Your task to perform on an android device: Search for pizza restaurants on Maps Image 0: 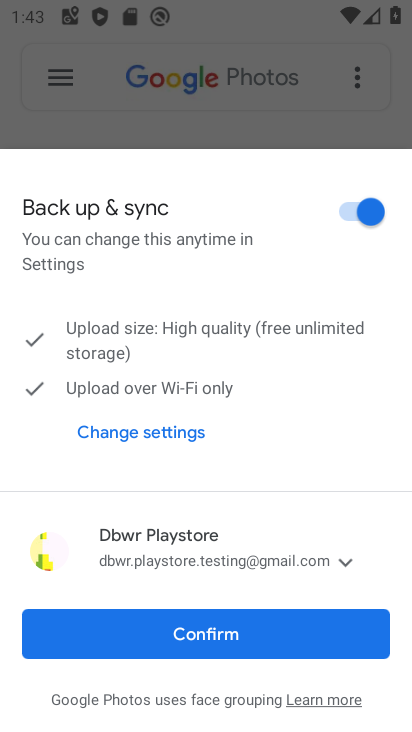
Step 0: press home button
Your task to perform on an android device: Search for pizza restaurants on Maps Image 1: 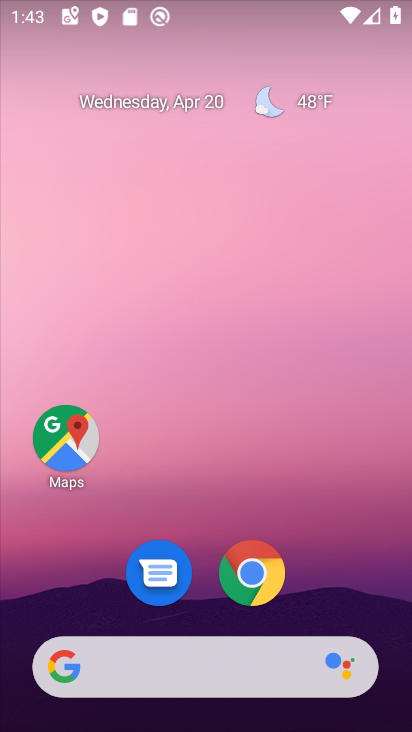
Step 1: drag from (178, 649) to (325, 124)
Your task to perform on an android device: Search for pizza restaurants on Maps Image 2: 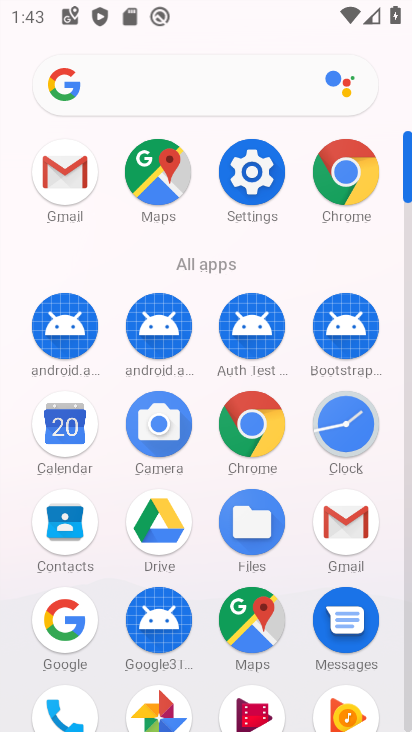
Step 2: click (165, 187)
Your task to perform on an android device: Search for pizza restaurants on Maps Image 3: 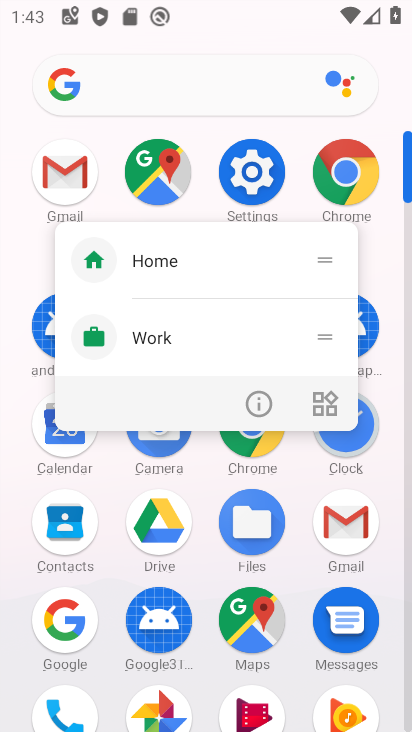
Step 3: click (154, 181)
Your task to perform on an android device: Search for pizza restaurants on Maps Image 4: 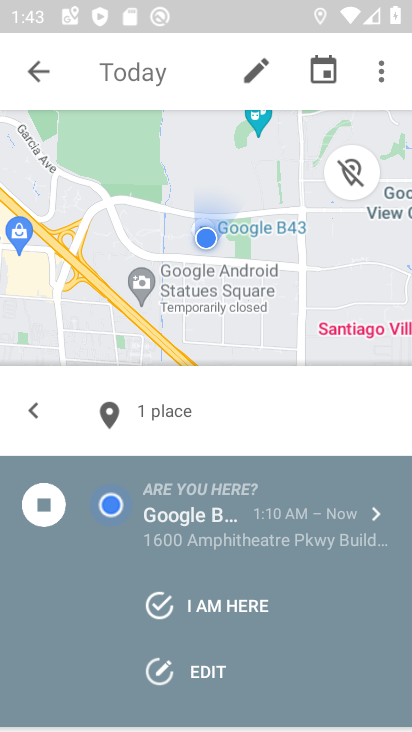
Step 4: click (46, 67)
Your task to perform on an android device: Search for pizza restaurants on Maps Image 5: 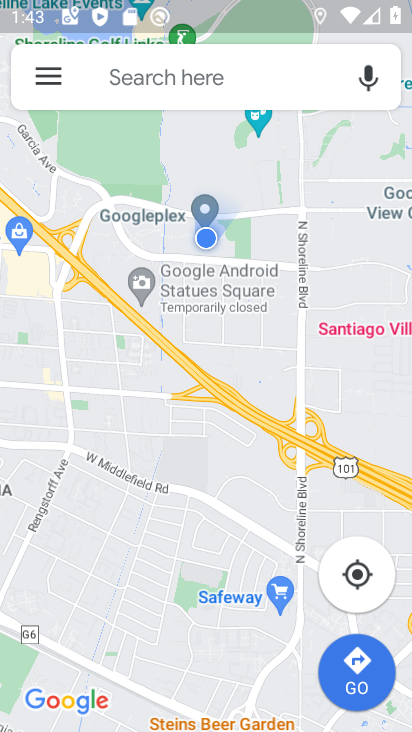
Step 5: click (171, 75)
Your task to perform on an android device: Search for pizza restaurants on Maps Image 6: 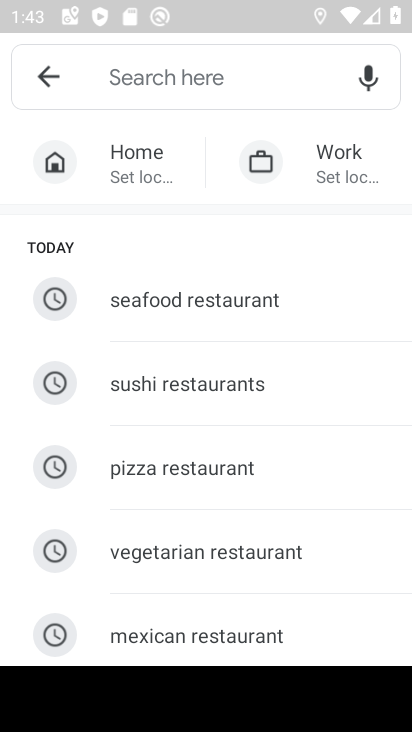
Step 6: click (208, 476)
Your task to perform on an android device: Search for pizza restaurants on Maps Image 7: 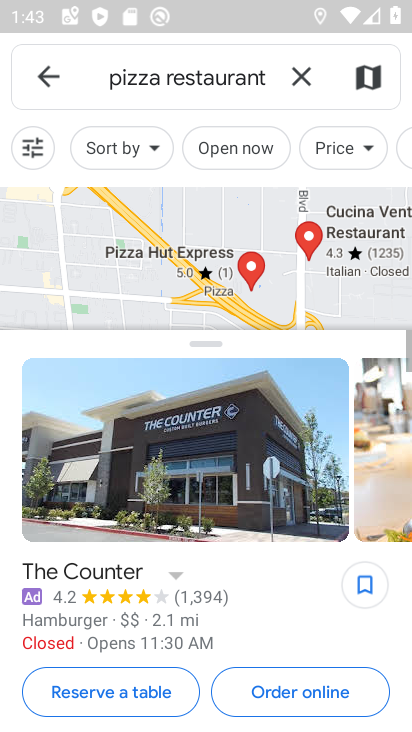
Step 7: task complete